Your task to perform on an android device: Open the calendar and show me this week's events? Image 0: 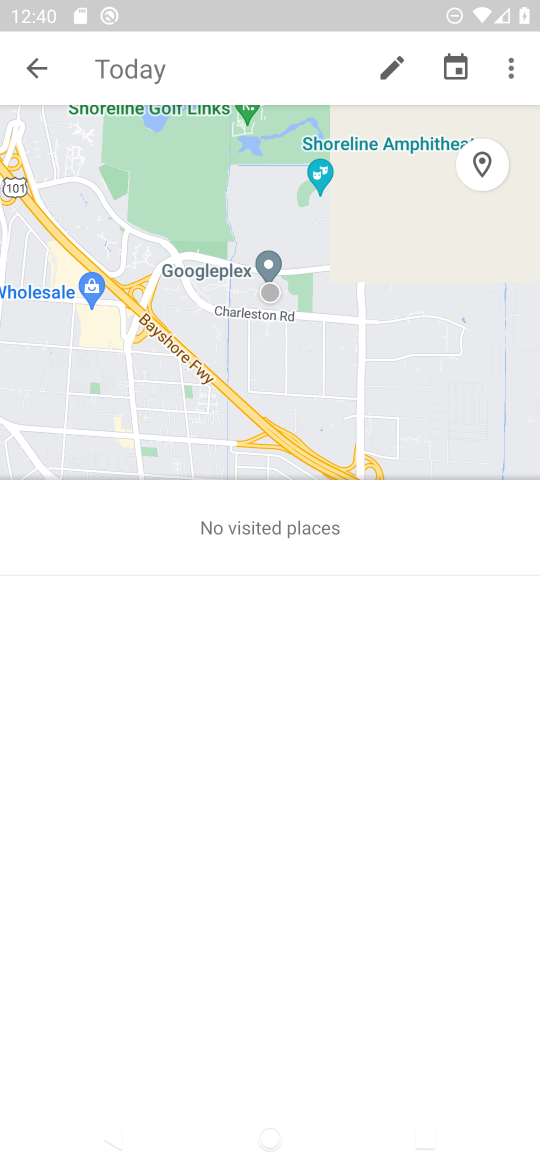
Step 0: press home button
Your task to perform on an android device: Open the calendar and show me this week's events? Image 1: 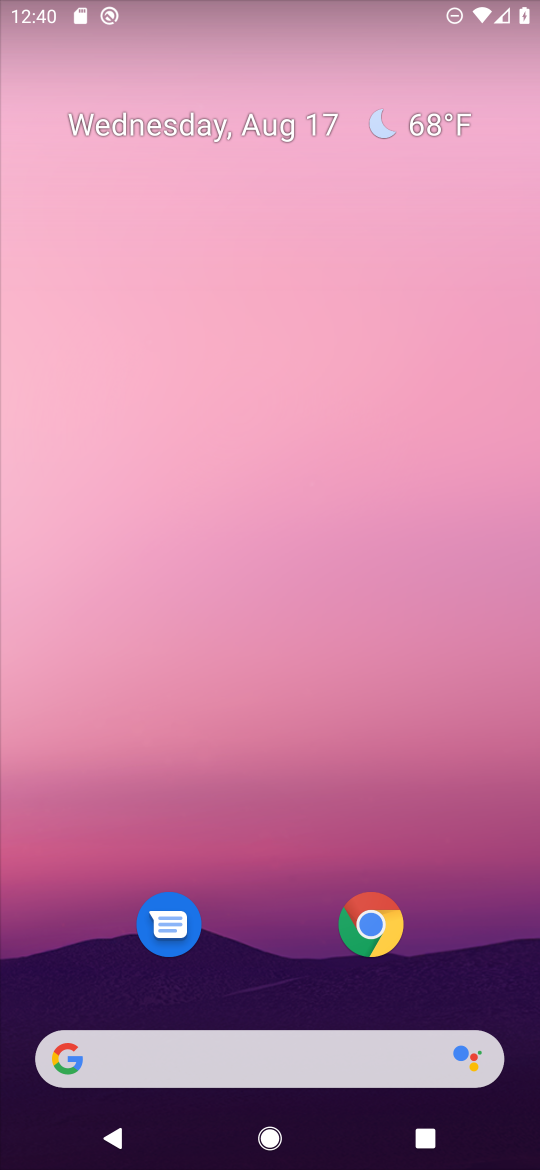
Step 1: click (259, 133)
Your task to perform on an android device: Open the calendar and show me this week's events? Image 2: 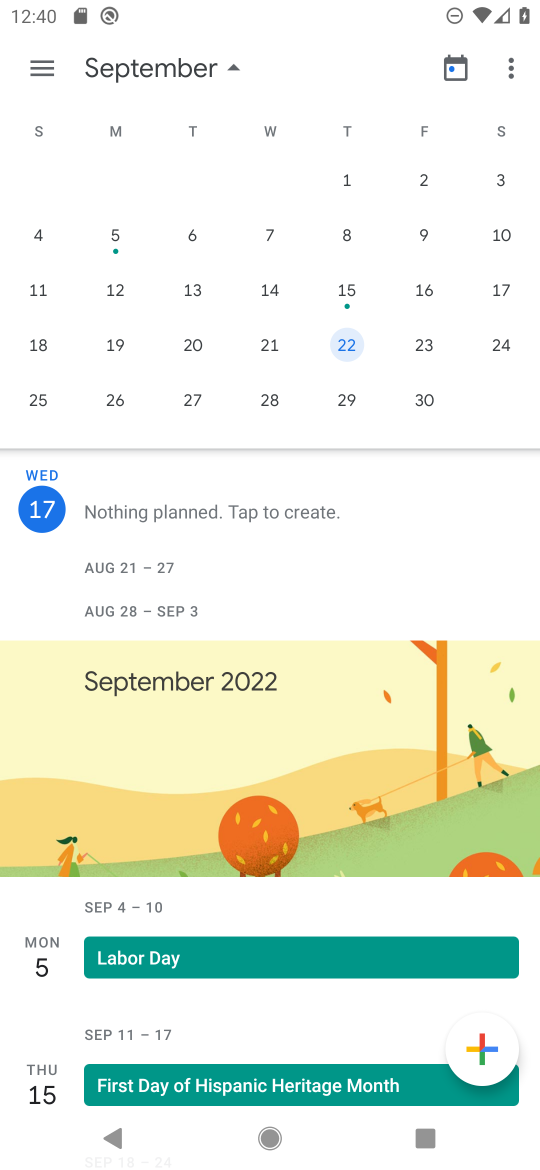
Step 2: click (194, 82)
Your task to perform on an android device: Open the calendar and show me this week's events? Image 3: 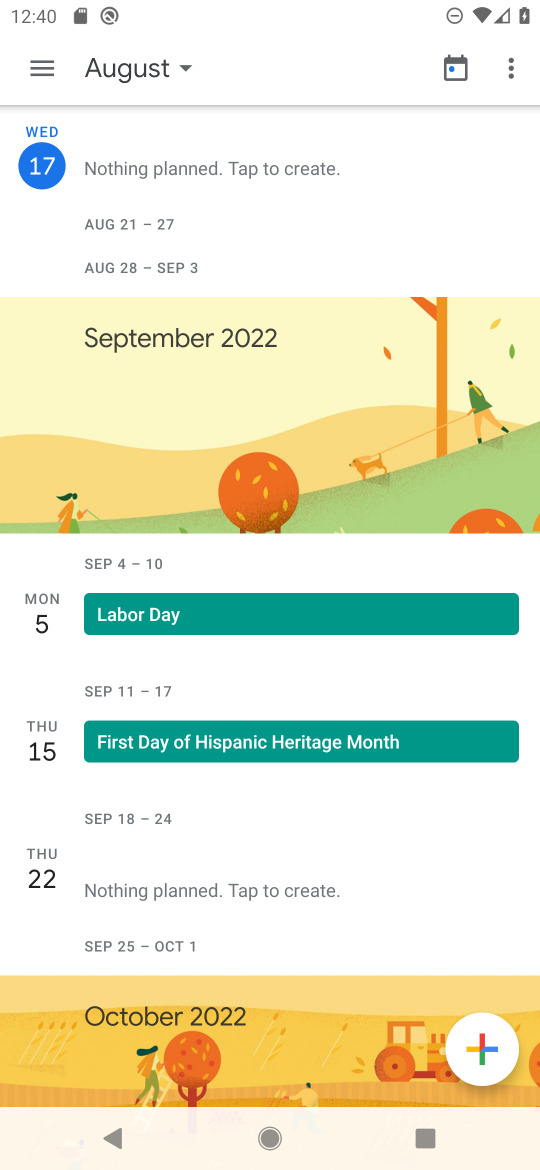
Step 3: click (194, 82)
Your task to perform on an android device: Open the calendar and show me this week's events? Image 4: 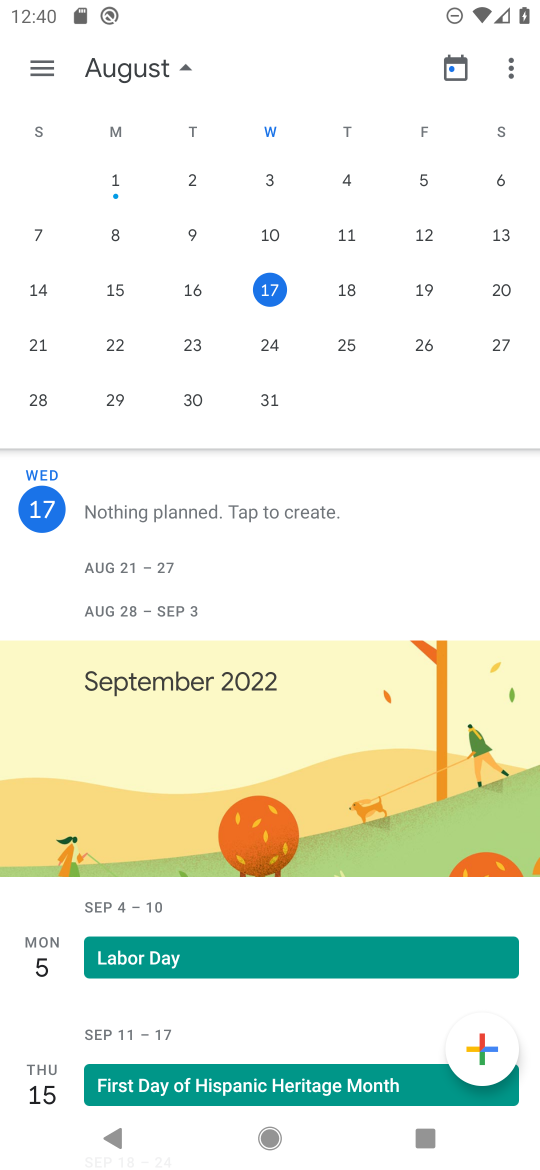
Step 4: task complete